Your task to perform on an android device: turn off notifications in google photos Image 0: 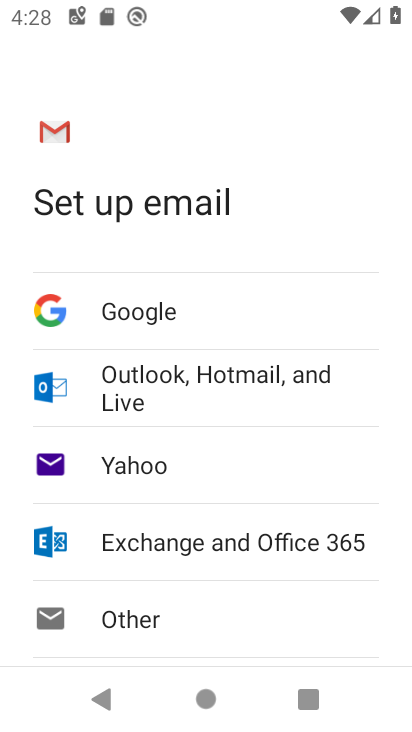
Step 0: press home button
Your task to perform on an android device: turn off notifications in google photos Image 1: 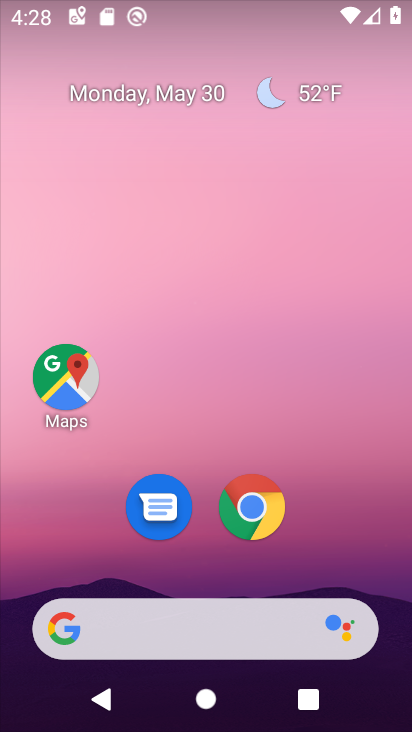
Step 1: drag from (248, 564) to (283, 2)
Your task to perform on an android device: turn off notifications in google photos Image 2: 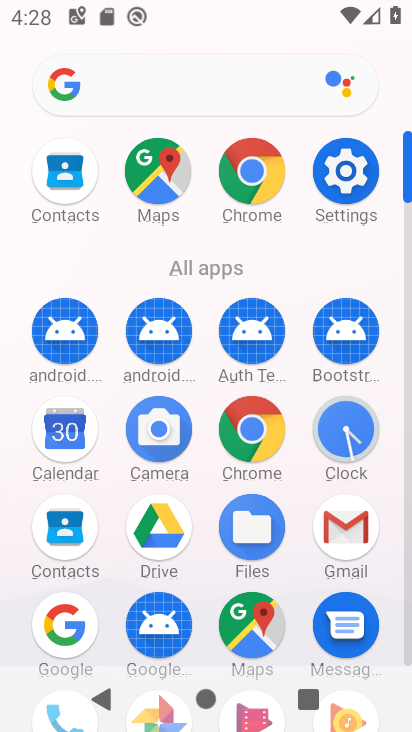
Step 2: drag from (195, 309) to (239, 136)
Your task to perform on an android device: turn off notifications in google photos Image 3: 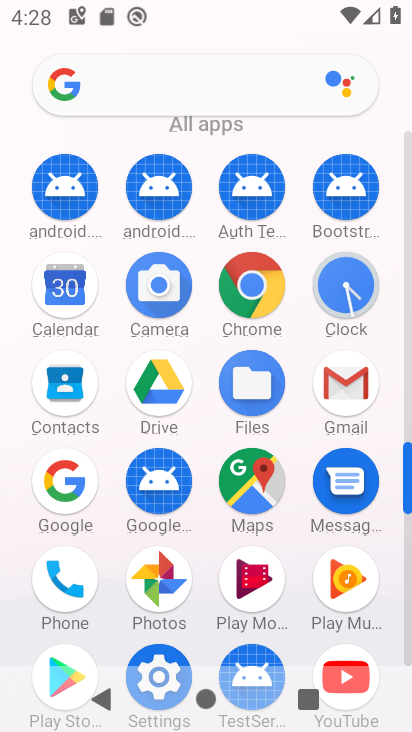
Step 3: click (149, 575)
Your task to perform on an android device: turn off notifications in google photos Image 4: 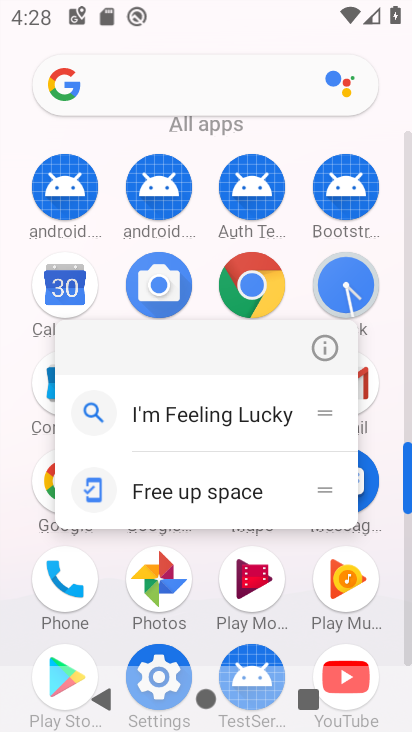
Step 4: click (331, 341)
Your task to perform on an android device: turn off notifications in google photos Image 5: 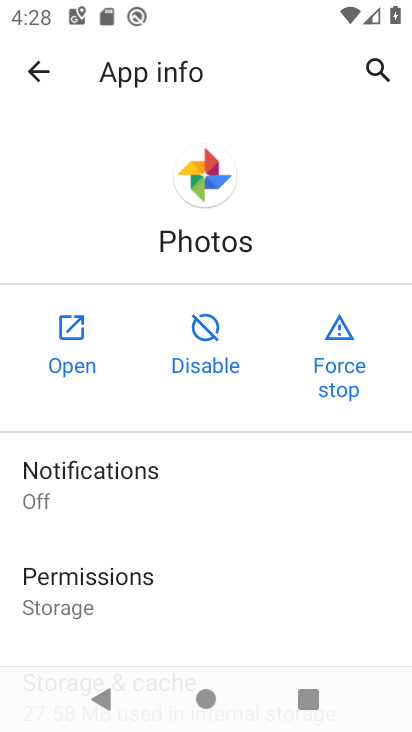
Step 5: click (131, 469)
Your task to perform on an android device: turn off notifications in google photos Image 6: 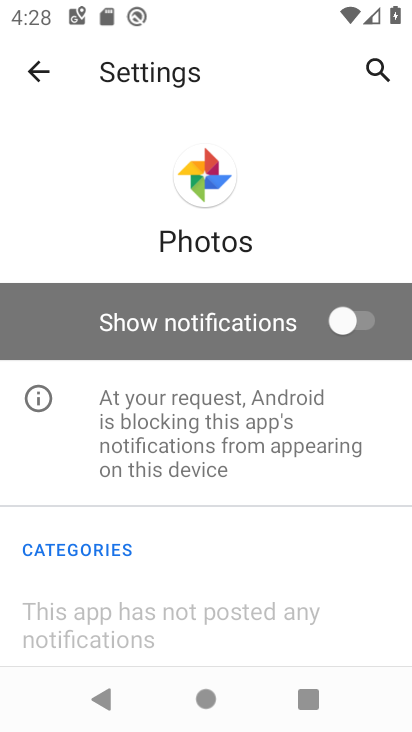
Step 6: task complete